Your task to perform on an android device: Go to sound settings Image 0: 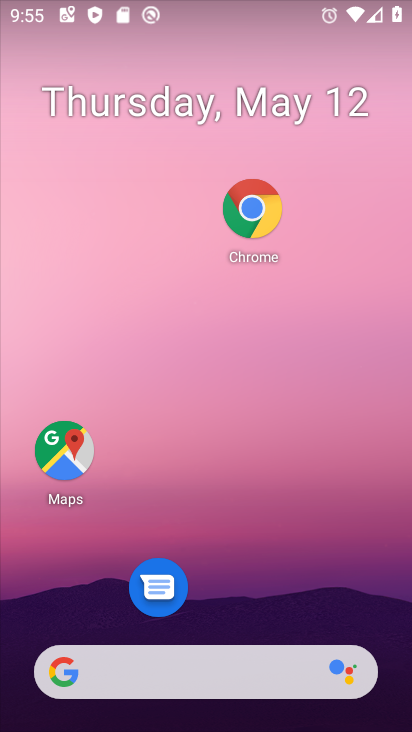
Step 0: drag from (280, 577) to (279, 221)
Your task to perform on an android device: Go to sound settings Image 1: 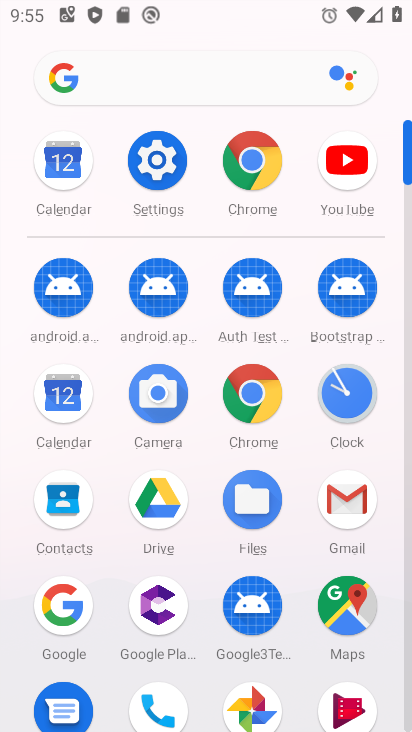
Step 1: click (155, 150)
Your task to perform on an android device: Go to sound settings Image 2: 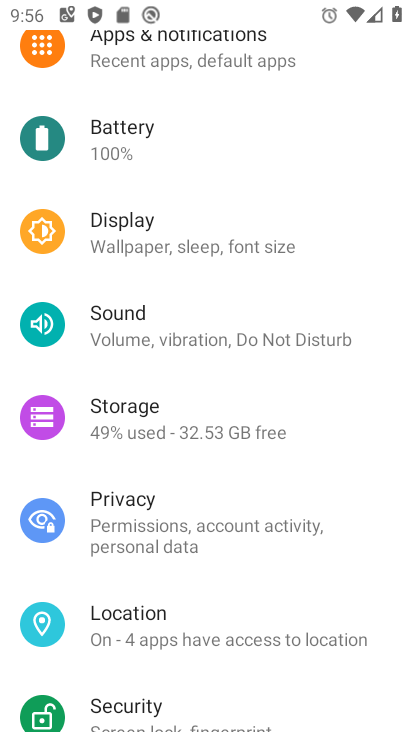
Step 2: drag from (171, 474) to (212, 183)
Your task to perform on an android device: Go to sound settings Image 3: 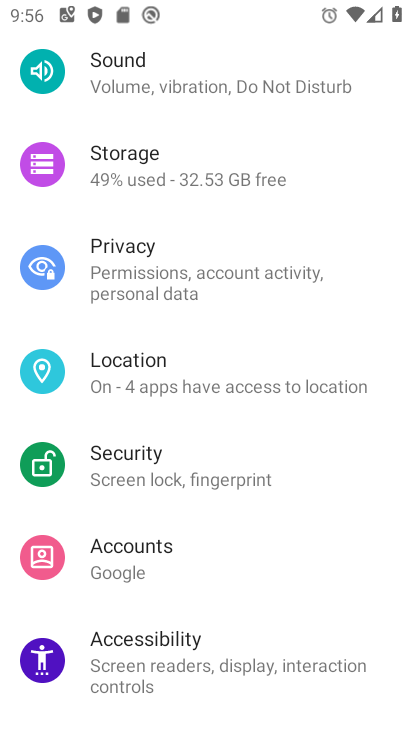
Step 3: drag from (161, 188) to (155, 723)
Your task to perform on an android device: Go to sound settings Image 4: 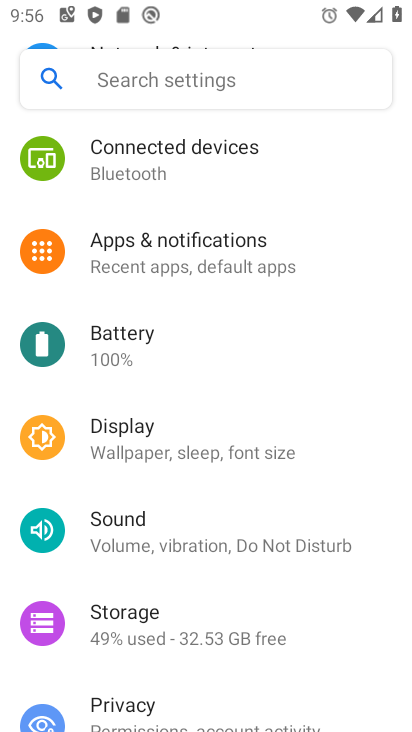
Step 4: drag from (164, 192) to (237, 498)
Your task to perform on an android device: Go to sound settings Image 5: 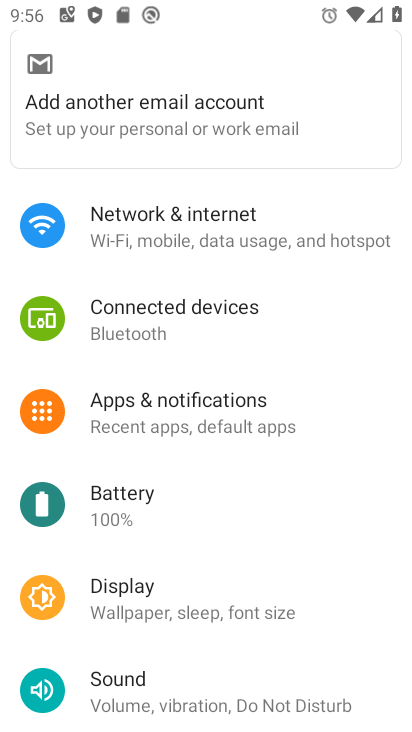
Step 5: click (159, 681)
Your task to perform on an android device: Go to sound settings Image 6: 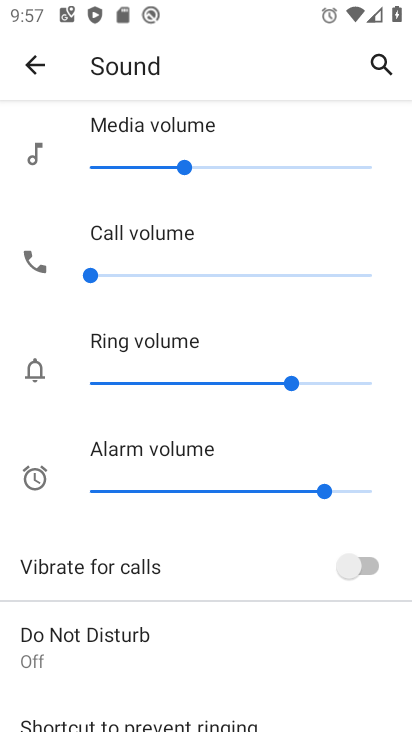
Step 6: task complete